Your task to perform on an android device: Search for pizza restaurants on Maps Image 0: 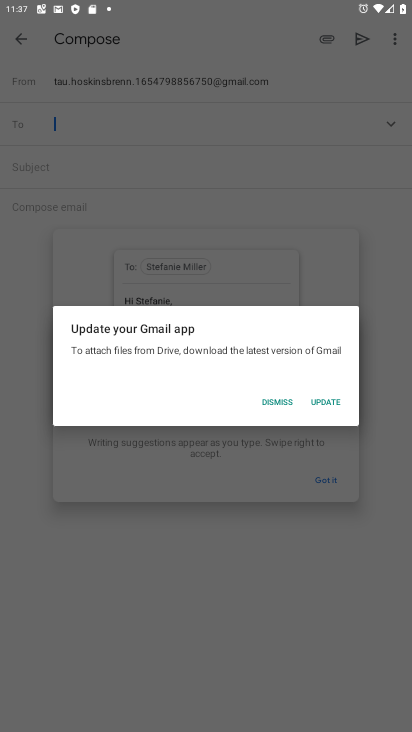
Step 0: press home button
Your task to perform on an android device: Search for pizza restaurants on Maps Image 1: 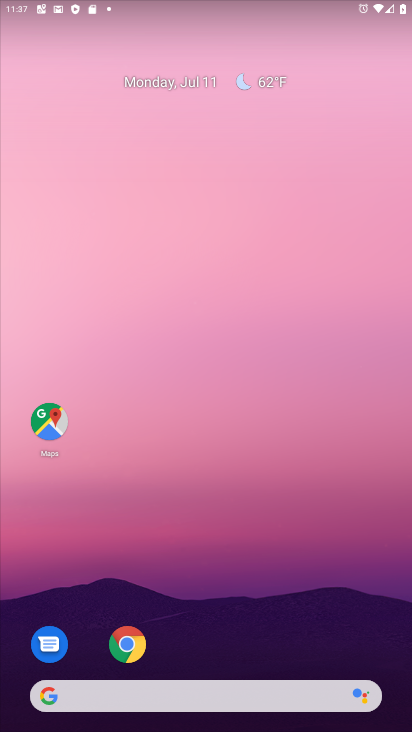
Step 1: drag from (204, 662) to (206, 66)
Your task to perform on an android device: Search for pizza restaurants on Maps Image 2: 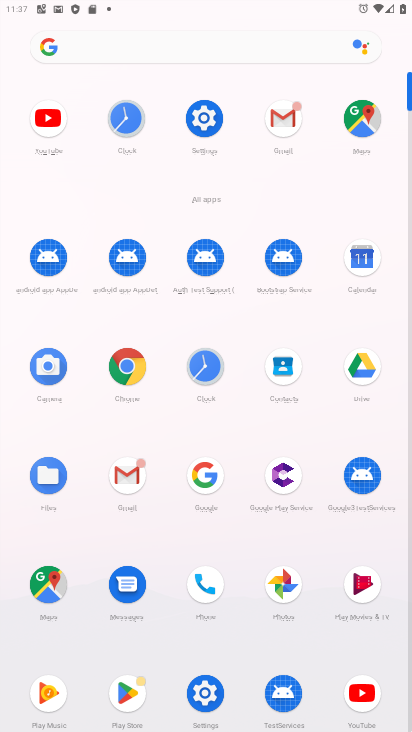
Step 2: click (52, 571)
Your task to perform on an android device: Search for pizza restaurants on Maps Image 3: 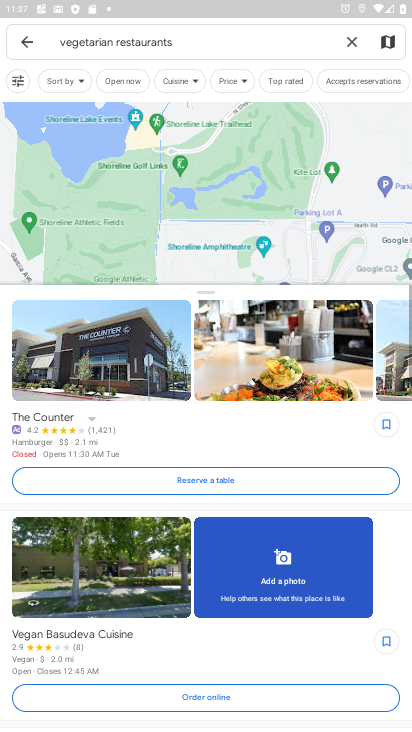
Step 3: click (217, 49)
Your task to perform on an android device: Search for pizza restaurants on Maps Image 4: 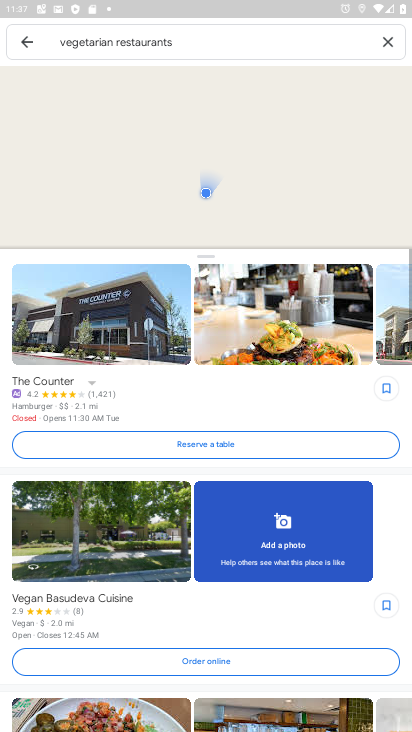
Step 4: click (351, 48)
Your task to perform on an android device: Search for pizza restaurants on Maps Image 5: 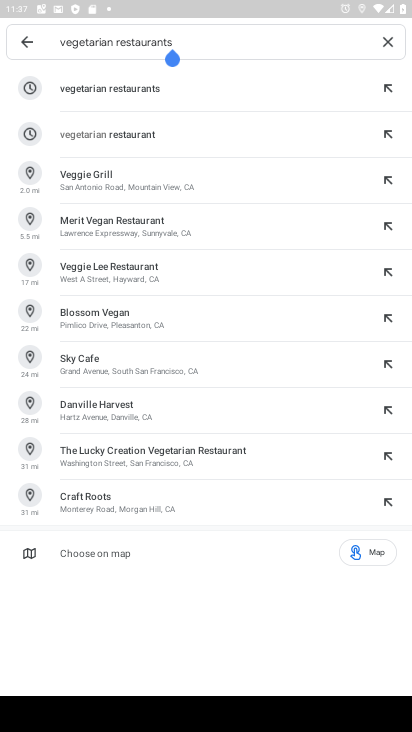
Step 5: click (390, 35)
Your task to perform on an android device: Search for pizza restaurants on Maps Image 6: 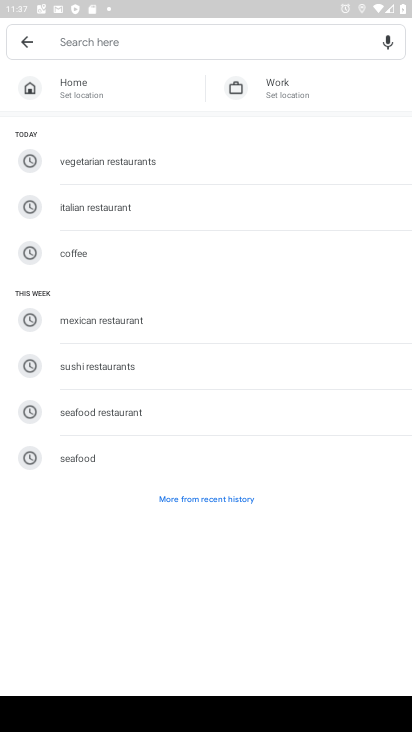
Step 6: type "pizza restaurants"
Your task to perform on an android device: Search for pizza restaurants on Maps Image 7: 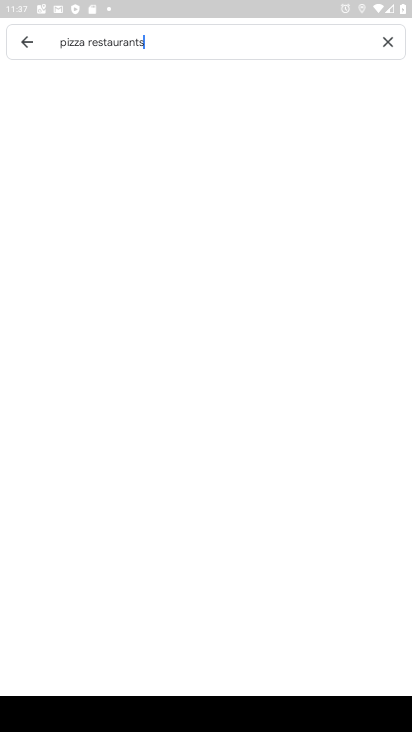
Step 7: type ""
Your task to perform on an android device: Search for pizza restaurants on Maps Image 8: 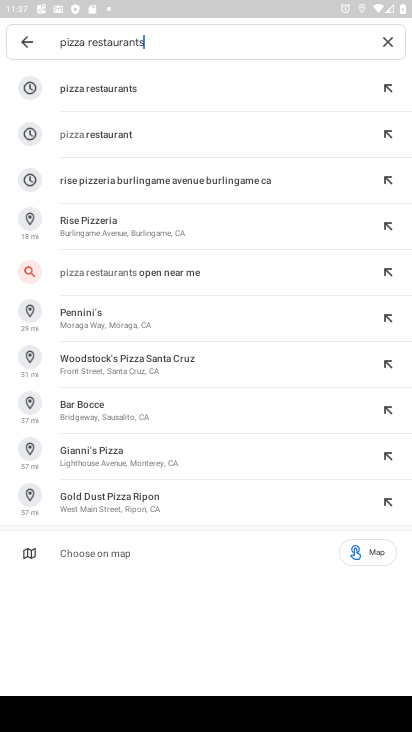
Step 8: click (112, 78)
Your task to perform on an android device: Search for pizza restaurants on Maps Image 9: 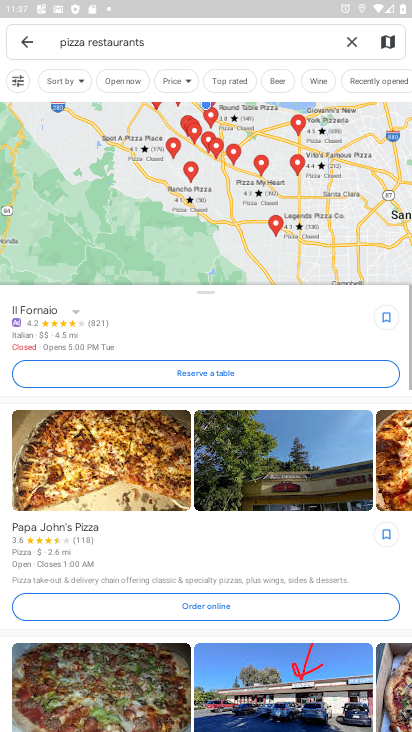
Step 9: task complete